Your task to perform on an android device: Go to battery settings Image 0: 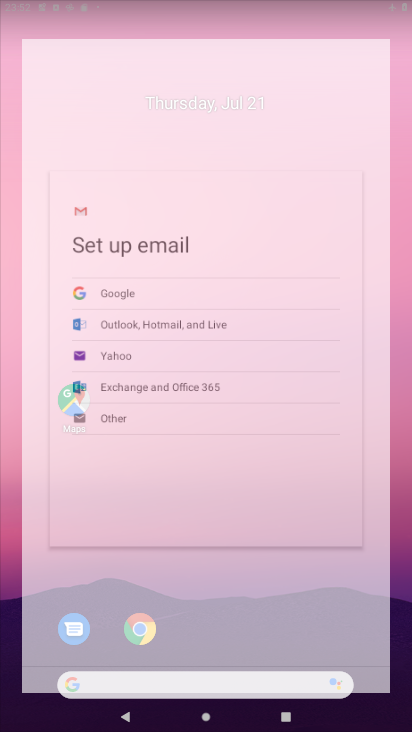
Step 0: drag from (285, 610) to (289, 78)
Your task to perform on an android device: Go to battery settings Image 1: 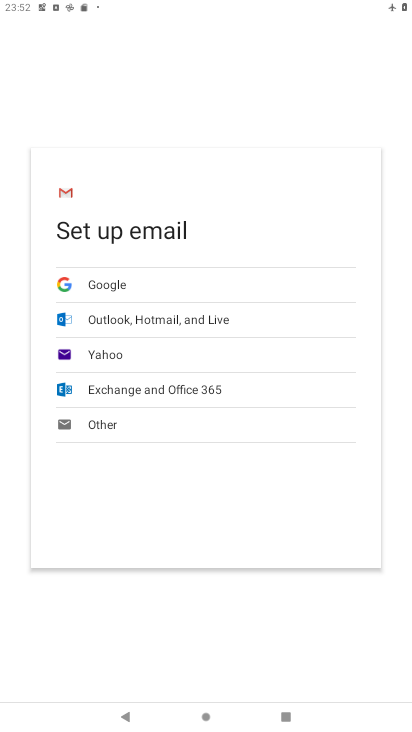
Step 1: press home button
Your task to perform on an android device: Go to battery settings Image 2: 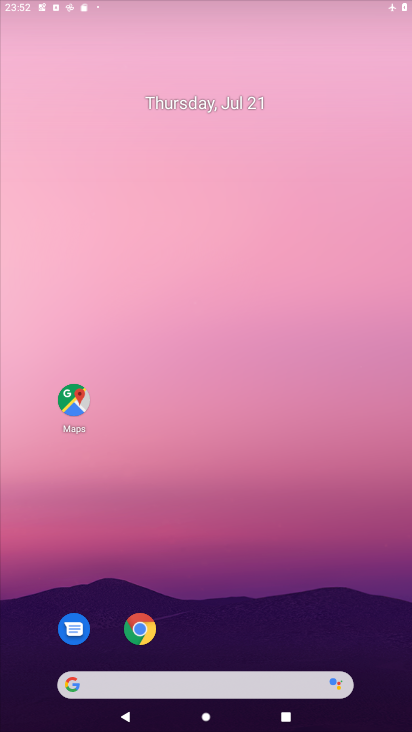
Step 2: drag from (311, 562) to (261, 46)
Your task to perform on an android device: Go to battery settings Image 3: 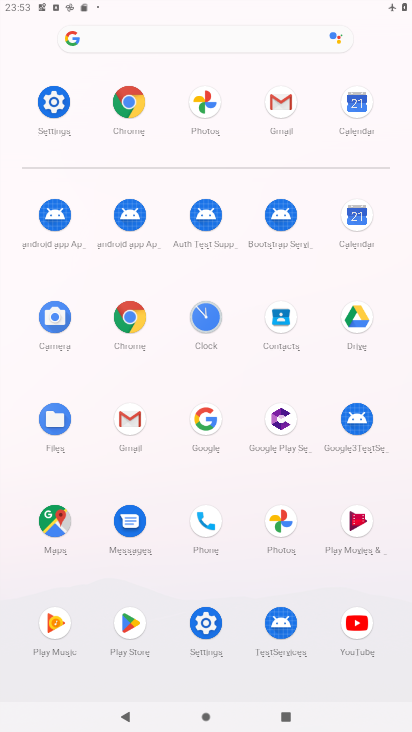
Step 3: click (201, 642)
Your task to perform on an android device: Go to battery settings Image 4: 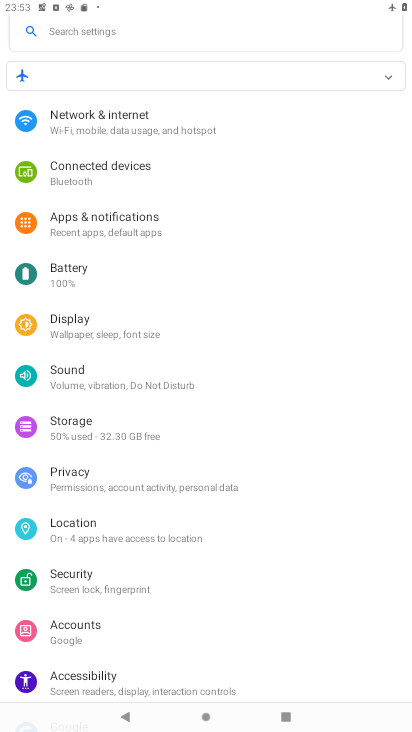
Step 4: click (152, 113)
Your task to perform on an android device: Go to battery settings Image 5: 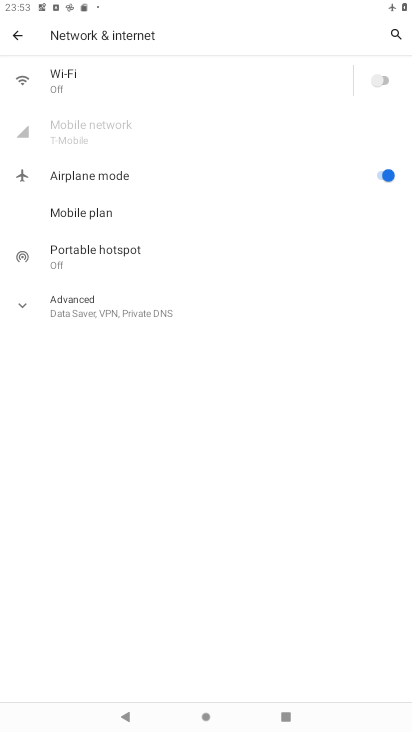
Step 5: press back button
Your task to perform on an android device: Go to battery settings Image 6: 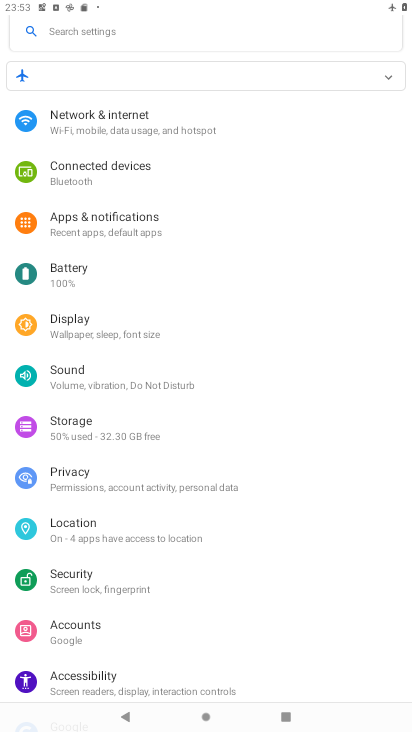
Step 6: click (179, 275)
Your task to perform on an android device: Go to battery settings Image 7: 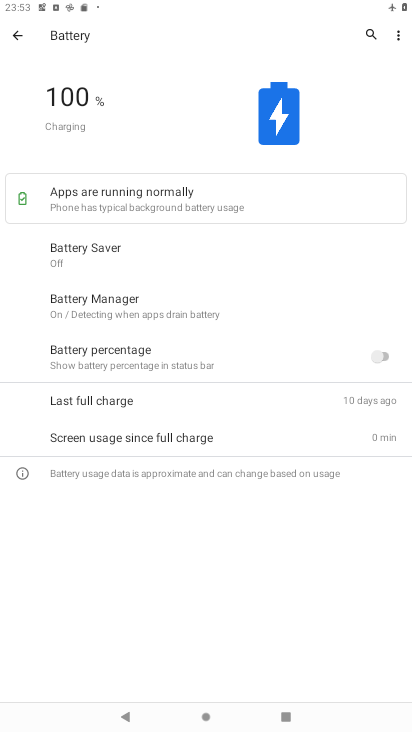
Step 7: click (395, 39)
Your task to perform on an android device: Go to battery settings Image 8: 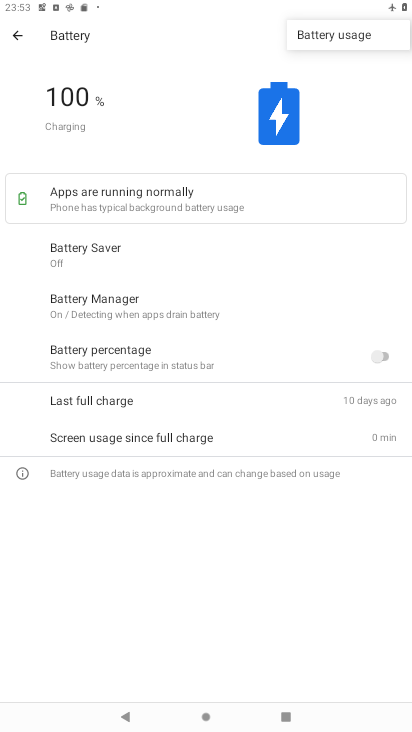
Step 8: task complete